Your task to perform on an android device: Go to internet settings Image 0: 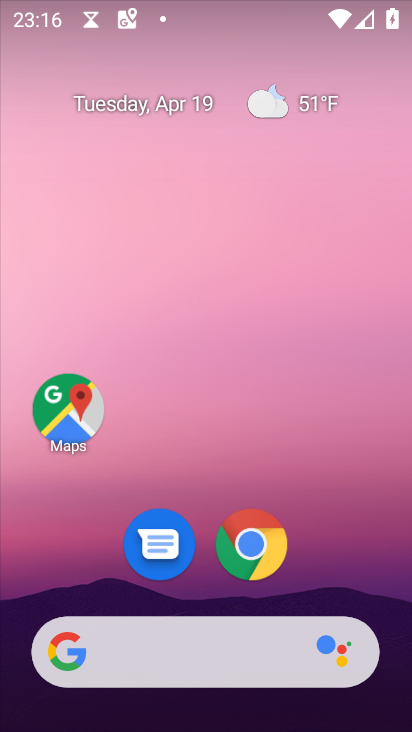
Step 0: drag from (333, 564) to (327, 89)
Your task to perform on an android device: Go to internet settings Image 1: 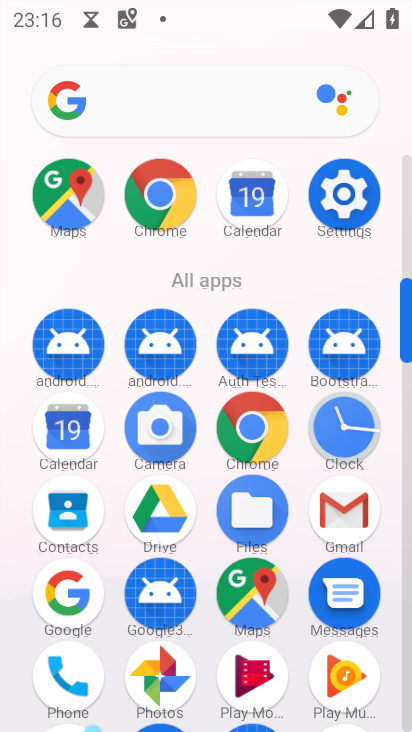
Step 1: click (337, 187)
Your task to perform on an android device: Go to internet settings Image 2: 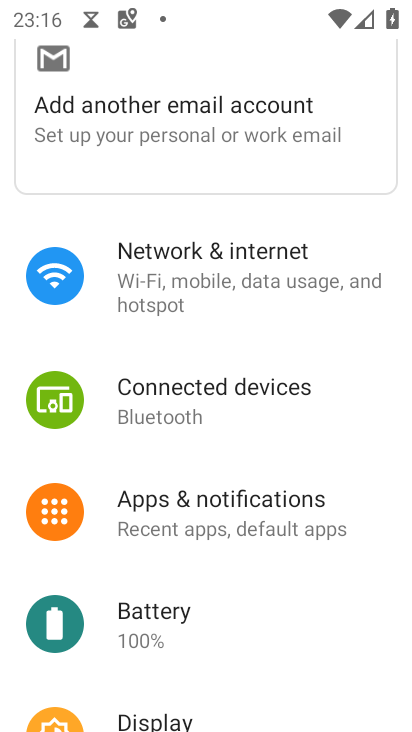
Step 2: click (247, 286)
Your task to perform on an android device: Go to internet settings Image 3: 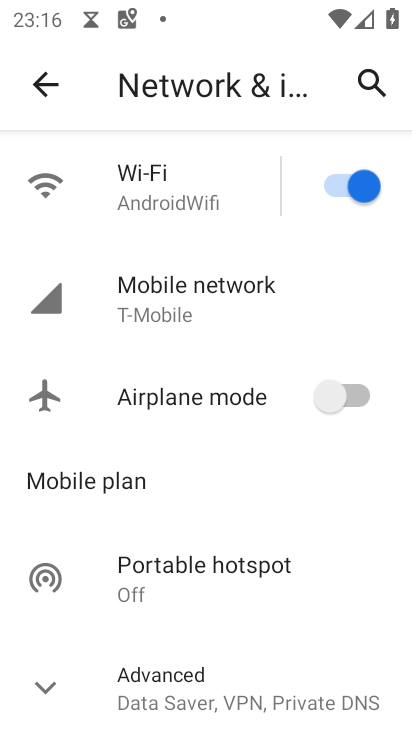
Step 3: click (197, 309)
Your task to perform on an android device: Go to internet settings Image 4: 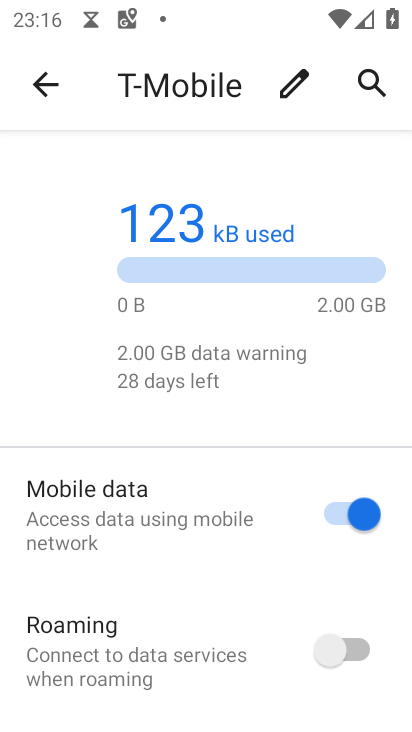
Step 4: task complete